Your task to perform on an android device: install app "Reddit" Image 0: 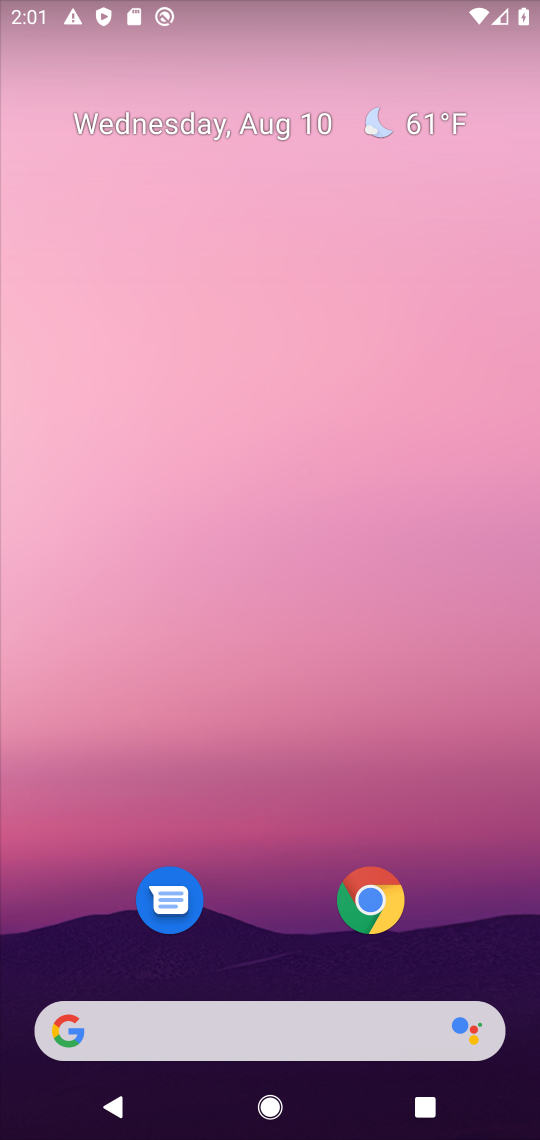
Step 0: drag from (308, 959) to (367, 225)
Your task to perform on an android device: install app "Reddit" Image 1: 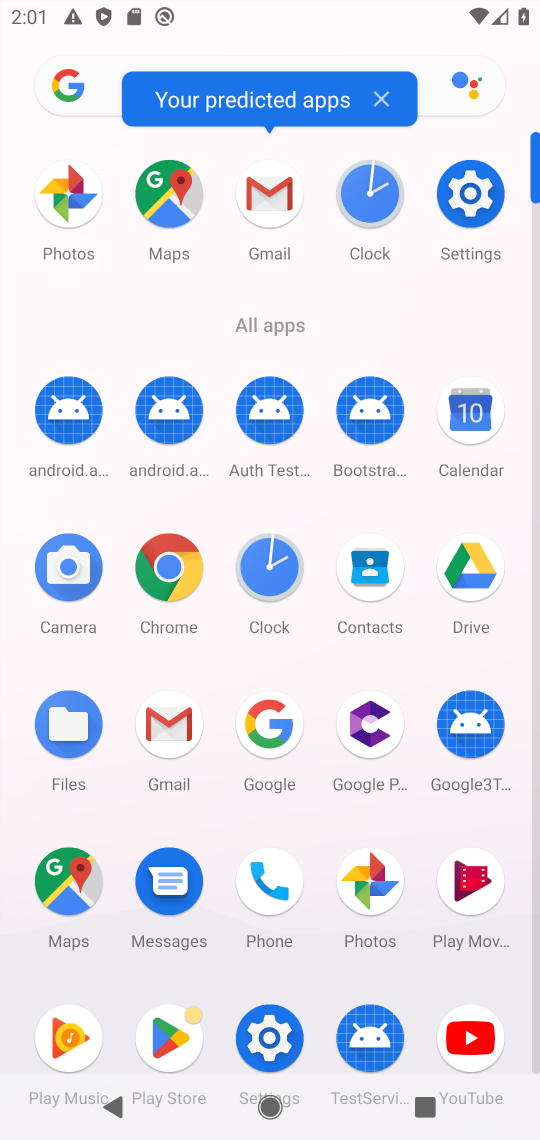
Step 1: click (169, 1036)
Your task to perform on an android device: install app "Reddit" Image 2: 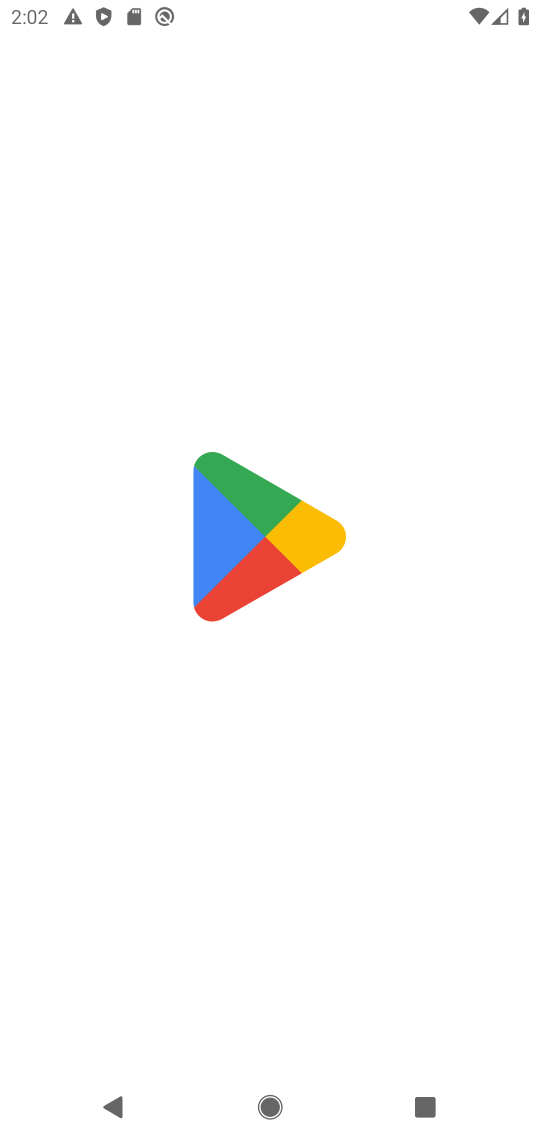
Step 2: press back button
Your task to perform on an android device: install app "Reddit" Image 3: 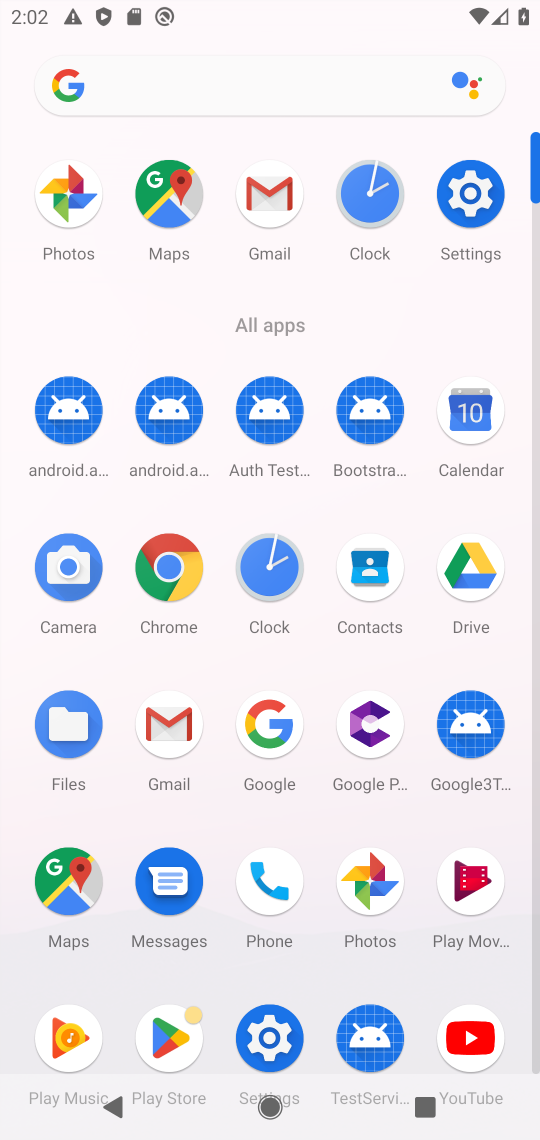
Step 3: click (160, 1041)
Your task to perform on an android device: install app "Reddit" Image 4: 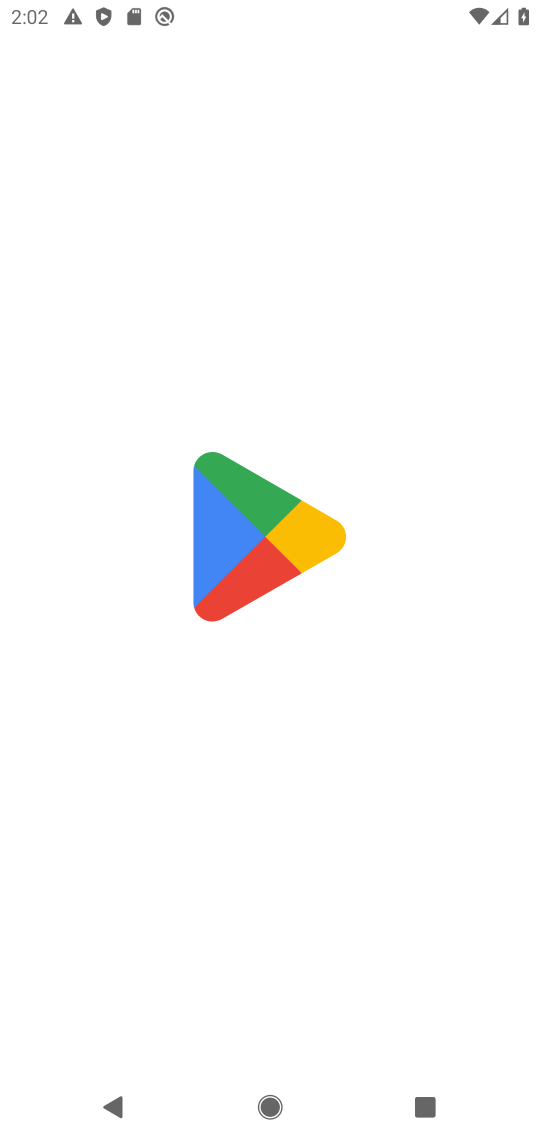
Step 4: task complete